Your task to perform on an android device: Open the calendar and show me this week's events? Image 0: 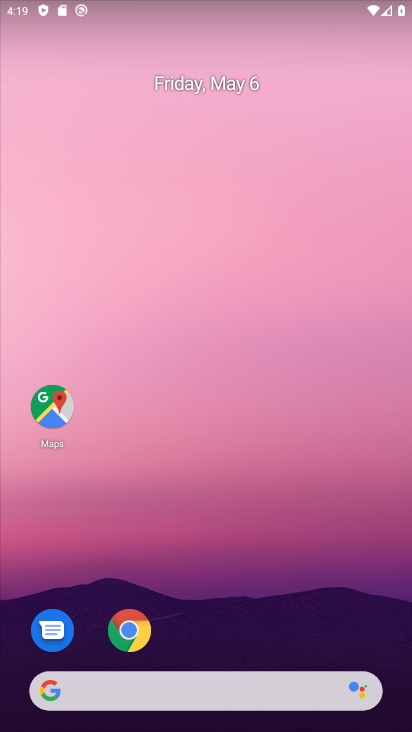
Step 0: drag from (274, 634) to (278, 11)
Your task to perform on an android device: Open the calendar and show me this week's events? Image 1: 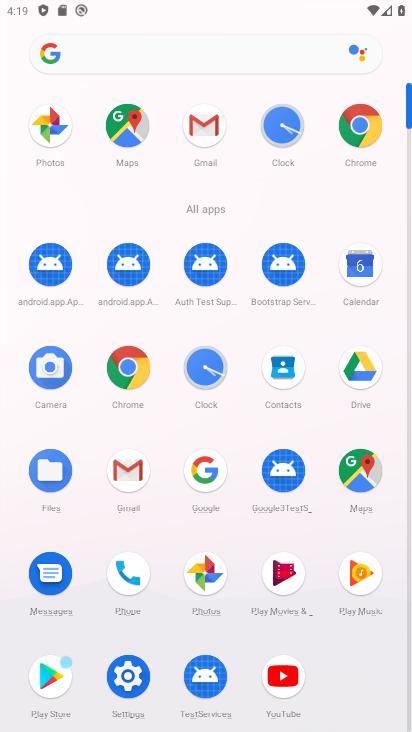
Step 1: click (361, 271)
Your task to perform on an android device: Open the calendar and show me this week's events? Image 2: 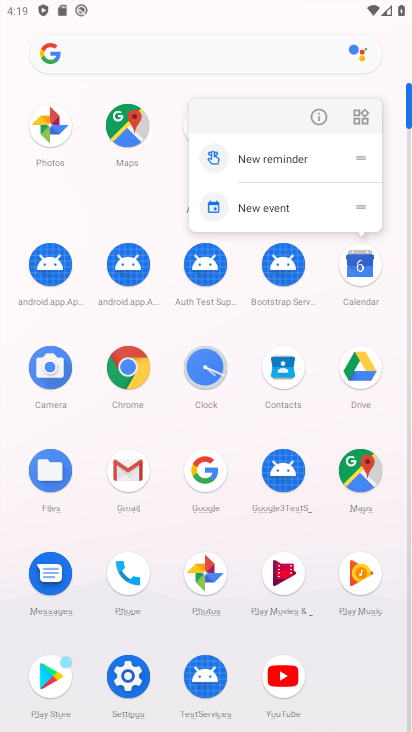
Step 2: click (361, 271)
Your task to perform on an android device: Open the calendar and show me this week's events? Image 3: 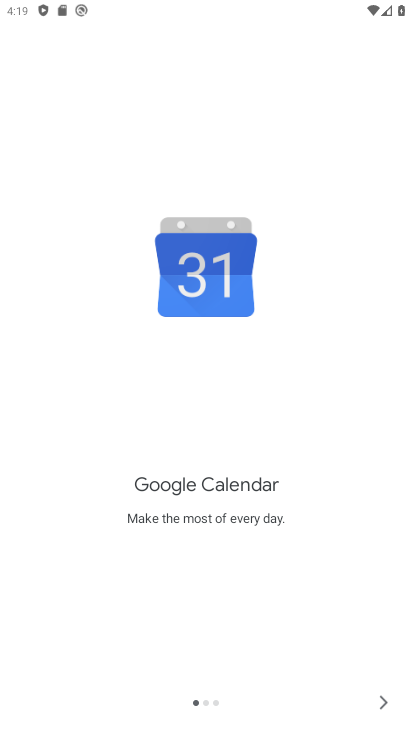
Step 3: click (386, 697)
Your task to perform on an android device: Open the calendar and show me this week's events? Image 4: 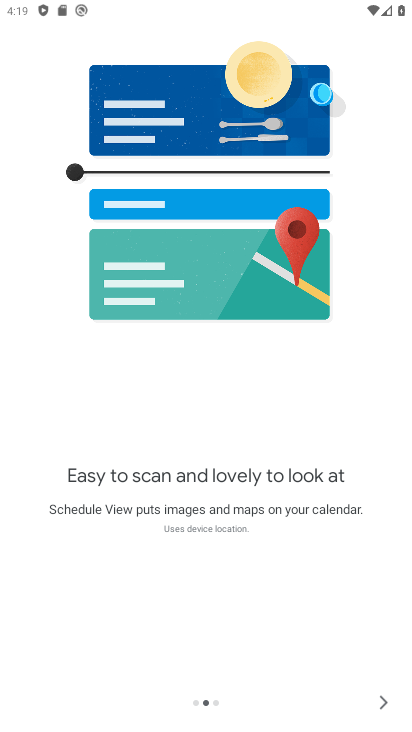
Step 4: click (386, 697)
Your task to perform on an android device: Open the calendar and show me this week's events? Image 5: 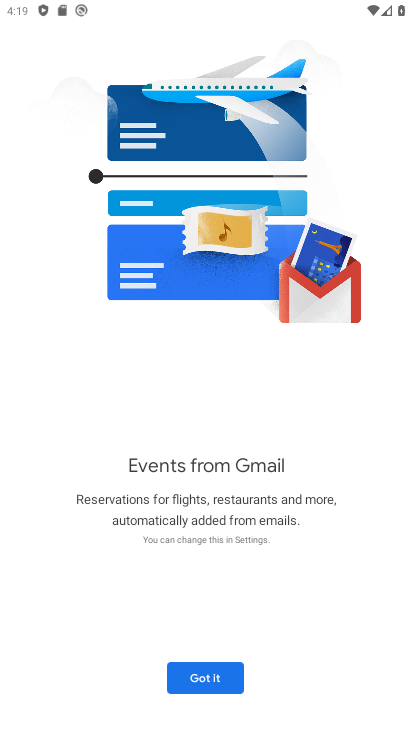
Step 5: click (233, 670)
Your task to perform on an android device: Open the calendar and show me this week's events? Image 6: 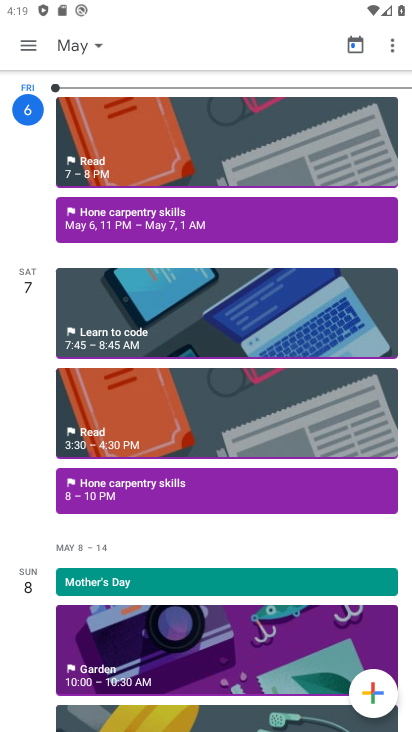
Step 6: click (77, 45)
Your task to perform on an android device: Open the calendar and show me this week's events? Image 7: 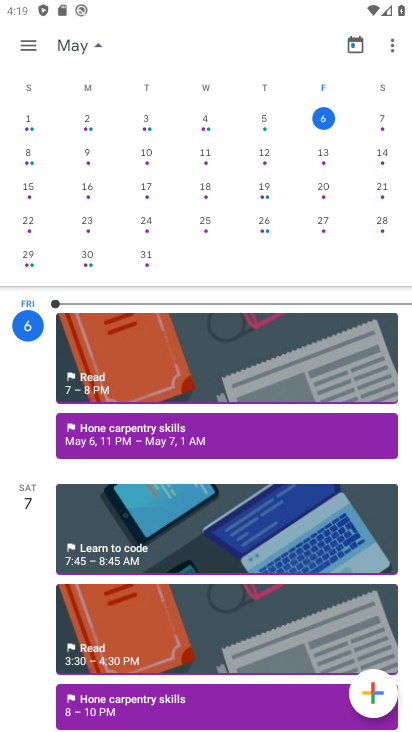
Step 7: click (379, 120)
Your task to perform on an android device: Open the calendar and show me this week's events? Image 8: 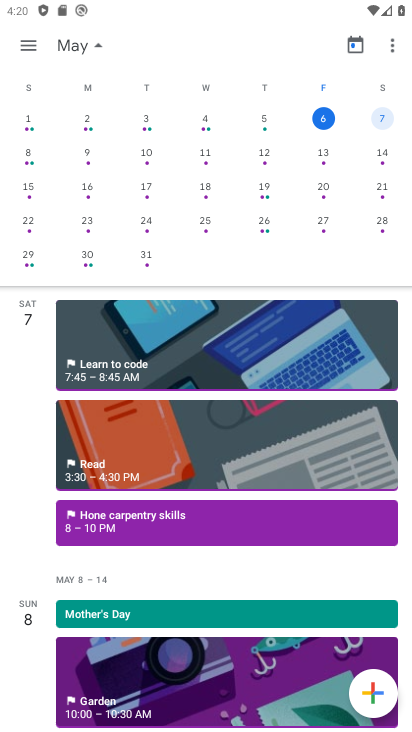
Step 8: task complete